Your task to perform on an android device: toggle show notifications on the lock screen Image 0: 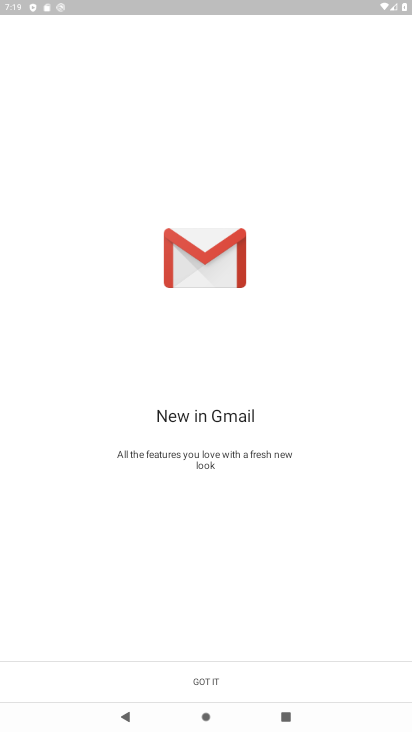
Step 0: press home button
Your task to perform on an android device: toggle show notifications on the lock screen Image 1: 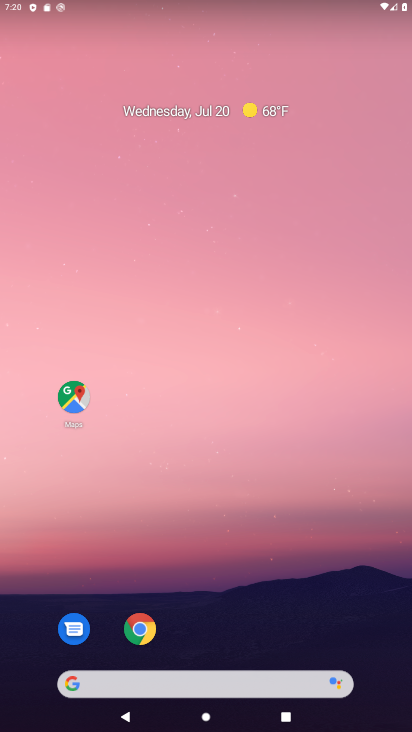
Step 1: drag from (339, 585) to (352, 139)
Your task to perform on an android device: toggle show notifications on the lock screen Image 2: 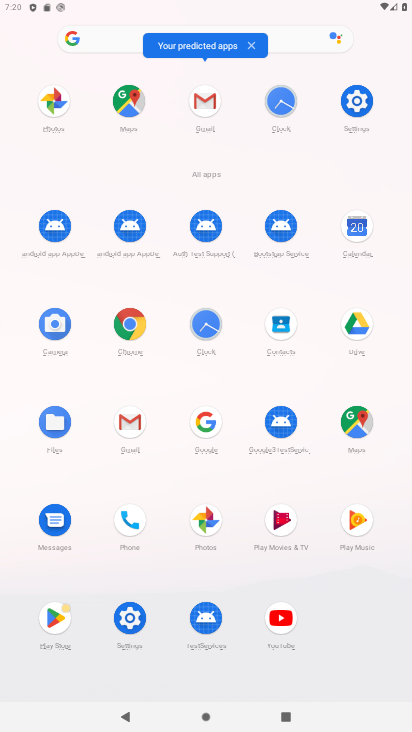
Step 2: click (355, 97)
Your task to perform on an android device: toggle show notifications on the lock screen Image 3: 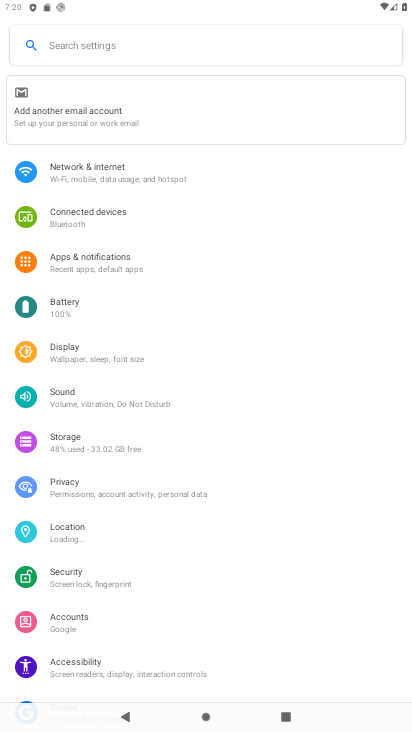
Step 3: drag from (356, 468) to (362, 279)
Your task to perform on an android device: toggle show notifications on the lock screen Image 4: 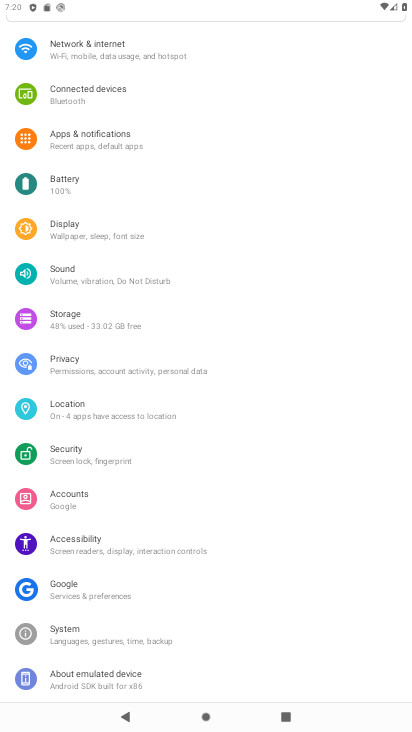
Step 4: drag from (341, 218) to (345, 390)
Your task to perform on an android device: toggle show notifications on the lock screen Image 5: 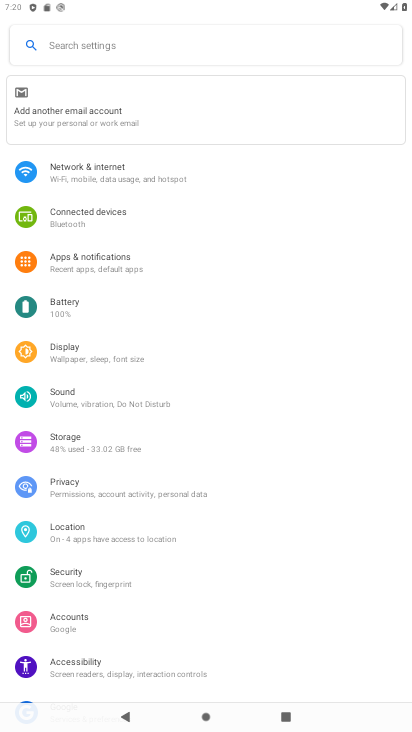
Step 5: click (144, 260)
Your task to perform on an android device: toggle show notifications on the lock screen Image 6: 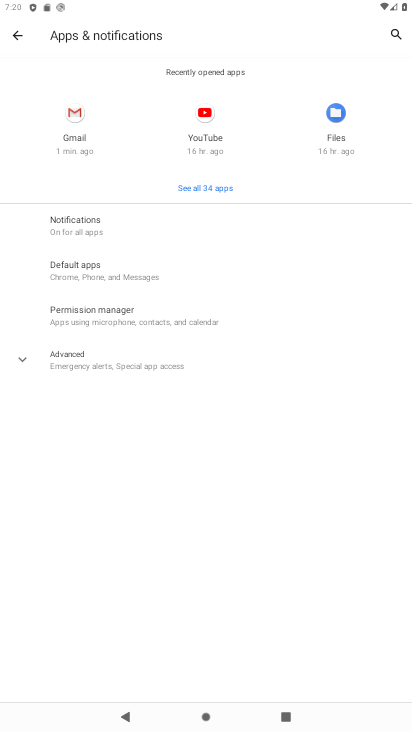
Step 6: click (137, 229)
Your task to perform on an android device: toggle show notifications on the lock screen Image 7: 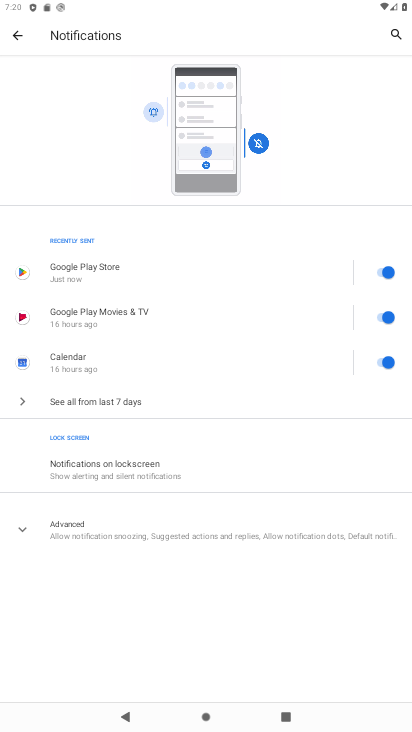
Step 7: click (217, 482)
Your task to perform on an android device: toggle show notifications on the lock screen Image 8: 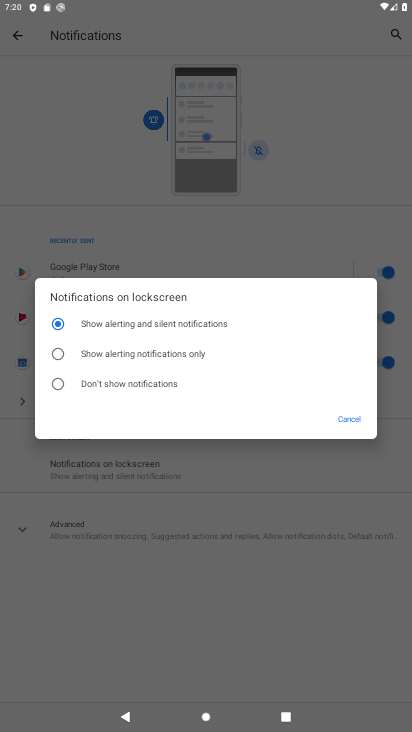
Step 8: click (157, 353)
Your task to perform on an android device: toggle show notifications on the lock screen Image 9: 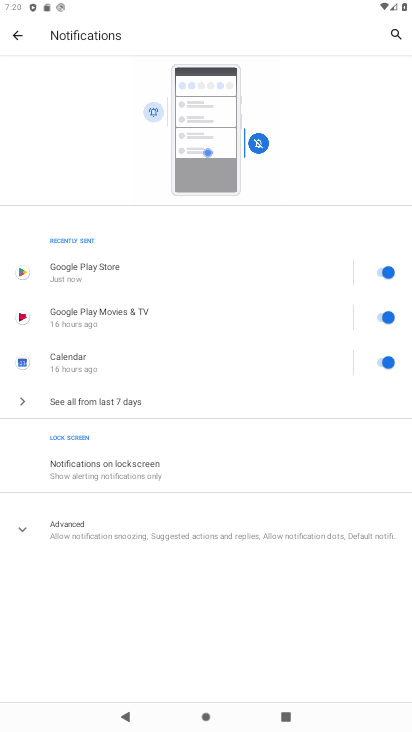
Step 9: task complete